Your task to perform on an android device: Go to calendar. Show me events next week Image 0: 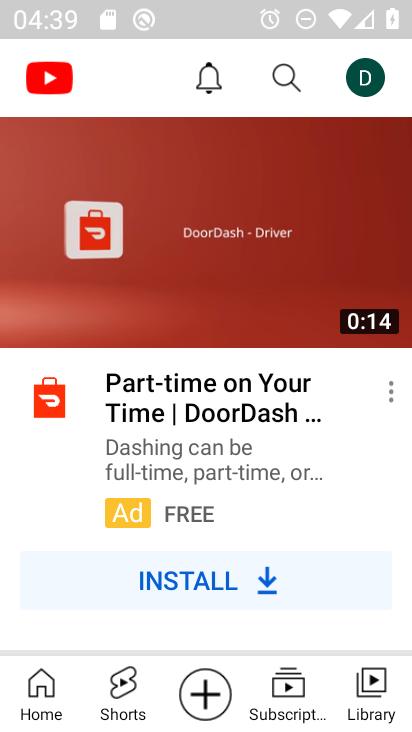
Step 0: press home button
Your task to perform on an android device: Go to calendar. Show me events next week Image 1: 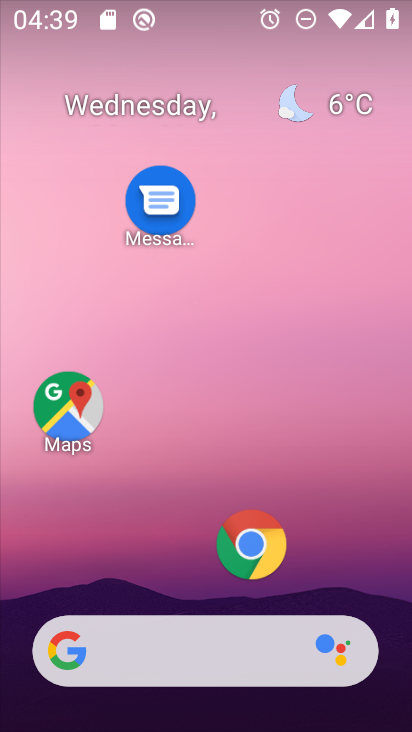
Step 1: drag from (100, 568) to (168, 98)
Your task to perform on an android device: Go to calendar. Show me events next week Image 2: 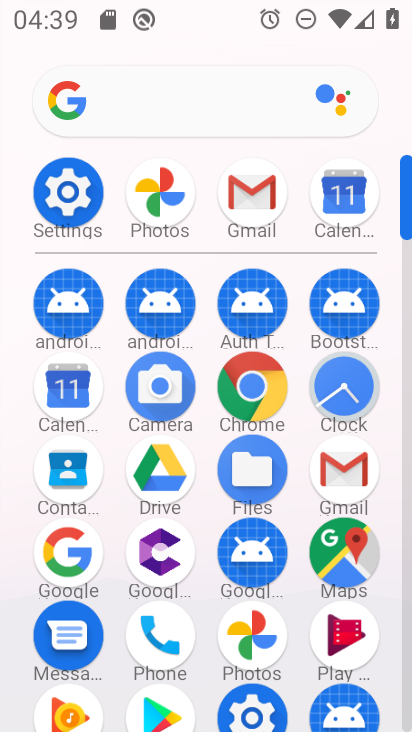
Step 2: click (67, 387)
Your task to perform on an android device: Go to calendar. Show me events next week Image 3: 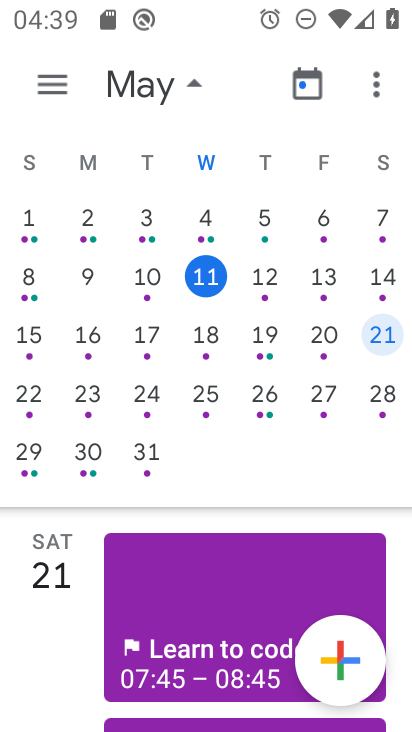
Step 3: click (35, 348)
Your task to perform on an android device: Go to calendar. Show me events next week Image 4: 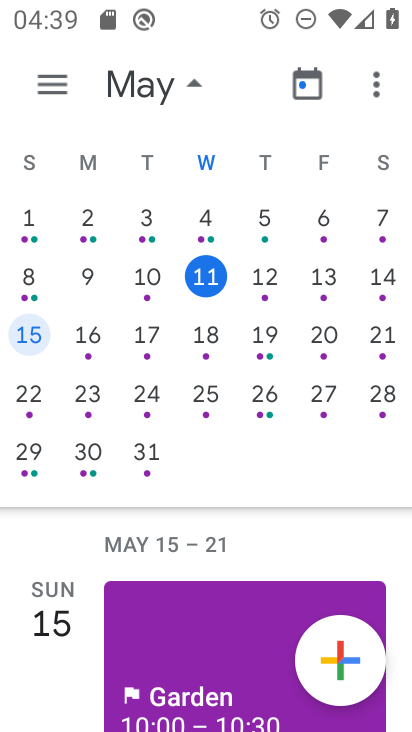
Step 4: task complete